Your task to perform on an android device: Open calendar and show me the third week of next month Image 0: 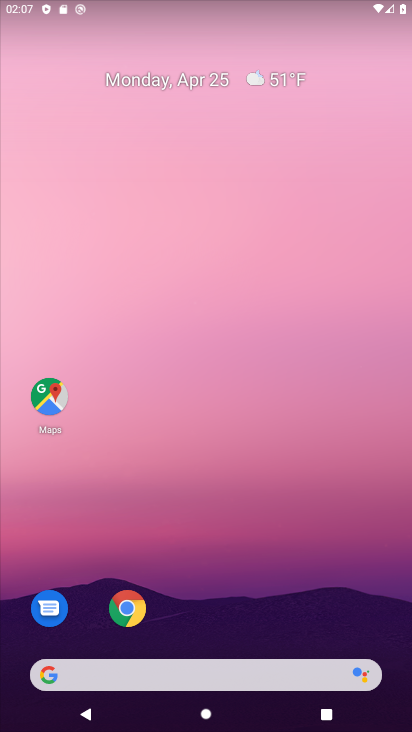
Step 0: drag from (217, 609) to (187, 110)
Your task to perform on an android device: Open calendar and show me the third week of next month Image 1: 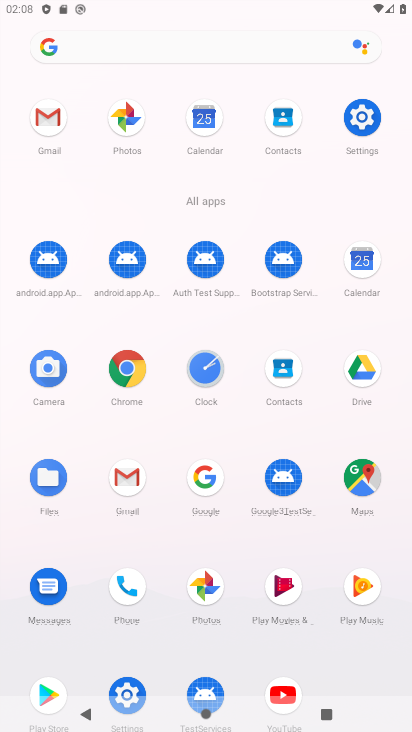
Step 1: click (364, 264)
Your task to perform on an android device: Open calendar and show me the third week of next month Image 2: 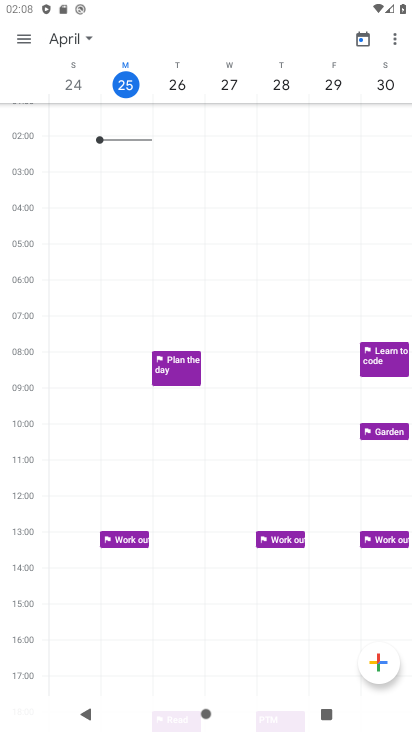
Step 2: click (89, 36)
Your task to perform on an android device: Open calendar and show me the third week of next month Image 3: 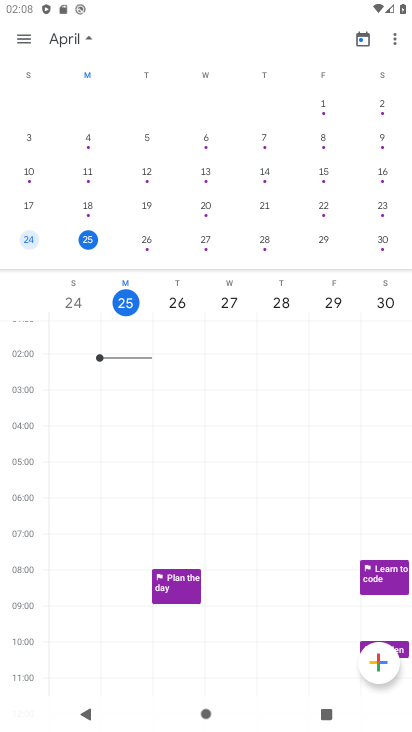
Step 3: drag from (403, 227) to (11, 293)
Your task to perform on an android device: Open calendar and show me the third week of next month Image 4: 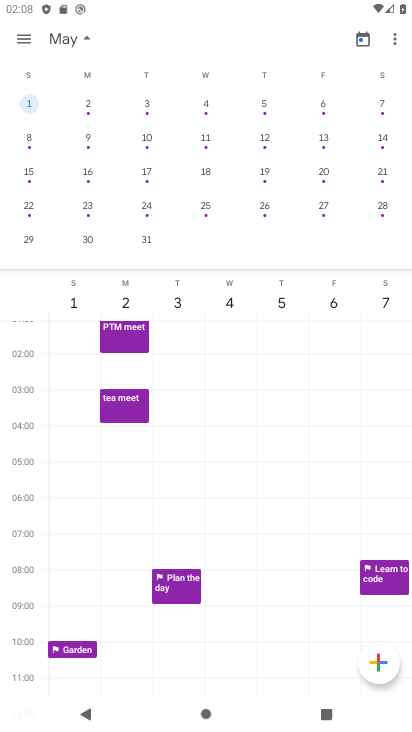
Step 4: drag from (362, 446) to (5, 362)
Your task to perform on an android device: Open calendar and show me the third week of next month Image 5: 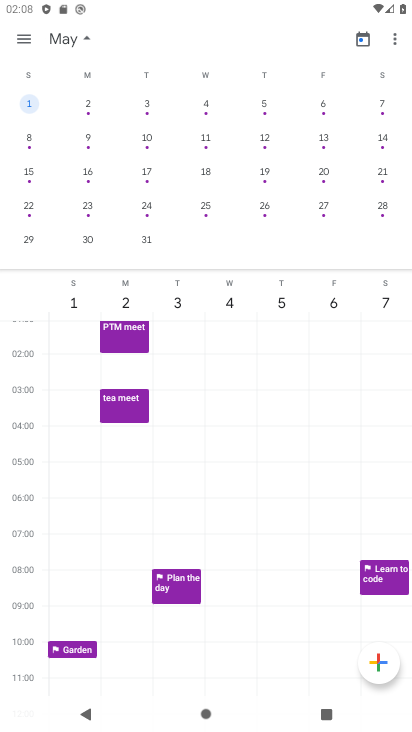
Step 5: drag from (394, 422) to (53, 464)
Your task to perform on an android device: Open calendar and show me the third week of next month Image 6: 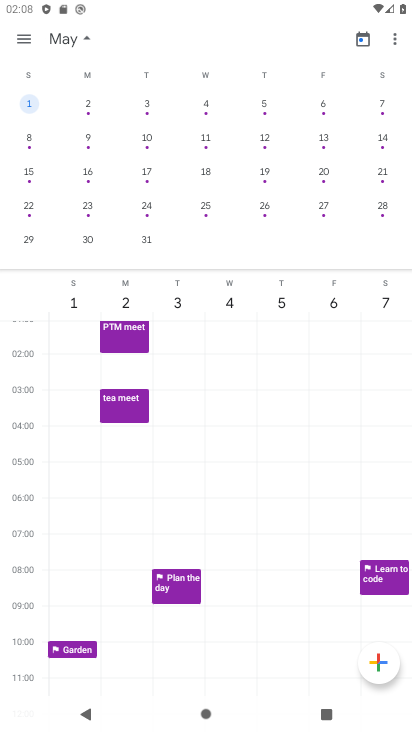
Step 6: click (63, 45)
Your task to perform on an android device: Open calendar and show me the third week of next month Image 7: 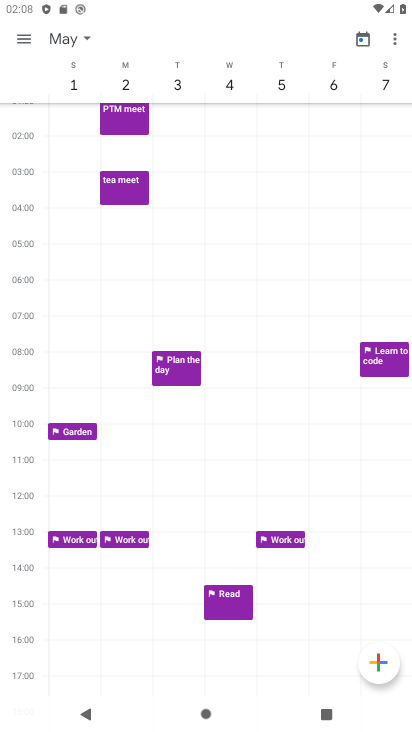
Step 7: task complete